Your task to perform on an android device: Turn off the flashlight Image 0: 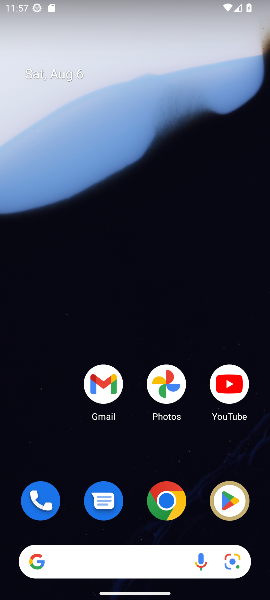
Step 0: drag from (126, 451) to (96, 70)
Your task to perform on an android device: Turn off the flashlight Image 1: 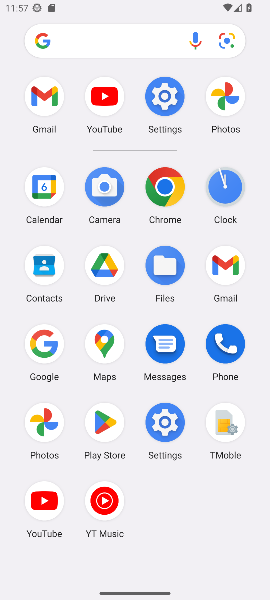
Step 1: task complete